Your task to perform on an android device: turn off picture-in-picture Image 0: 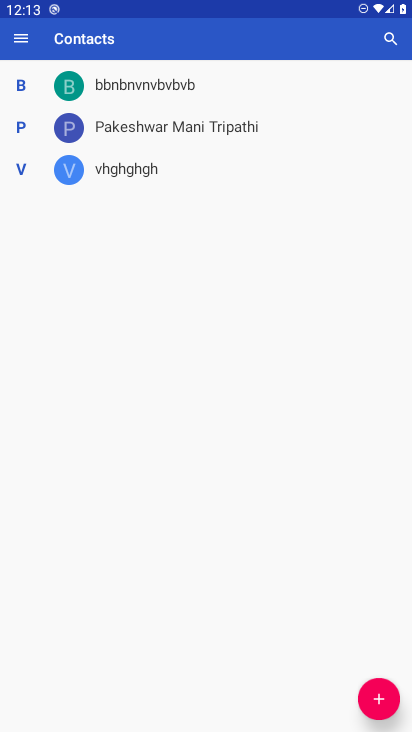
Step 0: press home button
Your task to perform on an android device: turn off picture-in-picture Image 1: 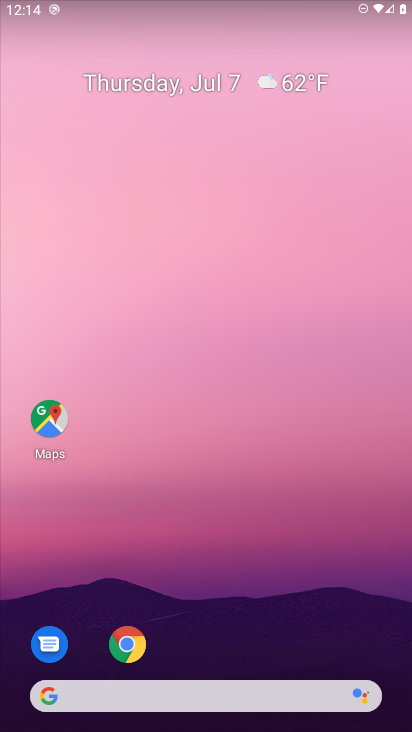
Step 1: click (137, 648)
Your task to perform on an android device: turn off picture-in-picture Image 2: 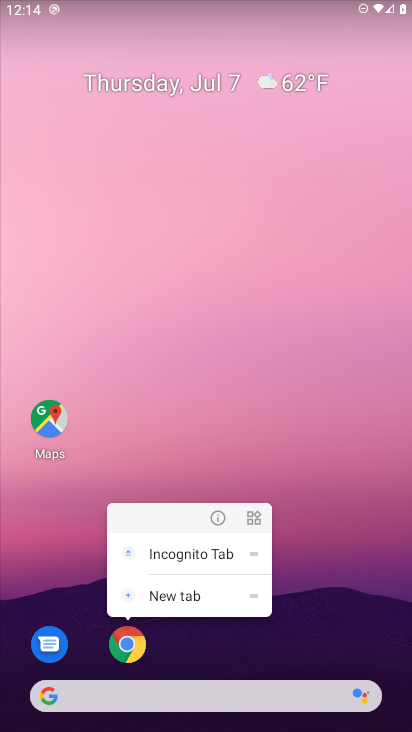
Step 2: click (222, 520)
Your task to perform on an android device: turn off picture-in-picture Image 3: 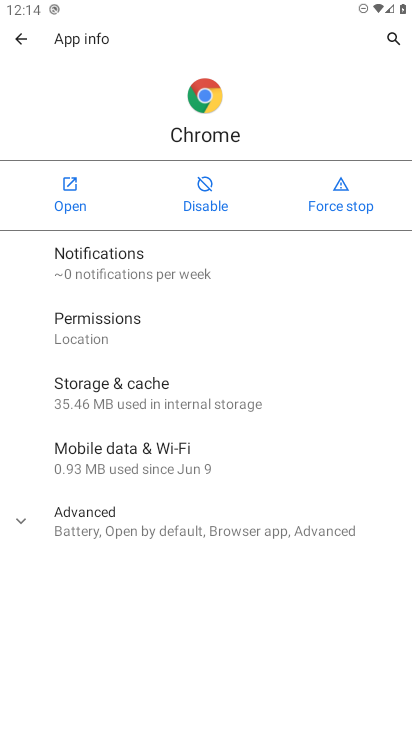
Step 3: click (113, 506)
Your task to perform on an android device: turn off picture-in-picture Image 4: 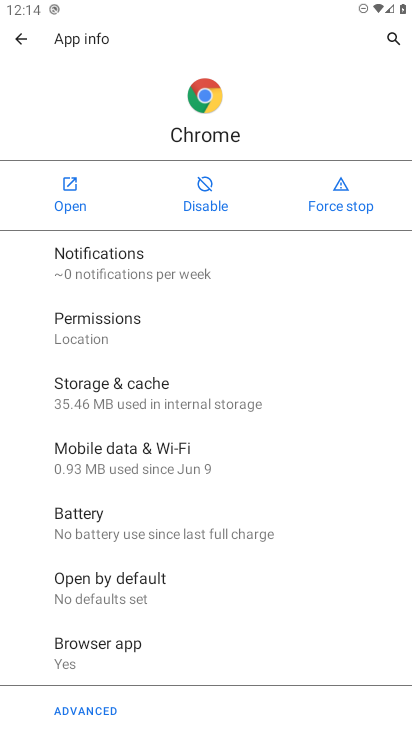
Step 4: drag from (338, 612) to (317, 281)
Your task to perform on an android device: turn off picture-in-picture Image 5: 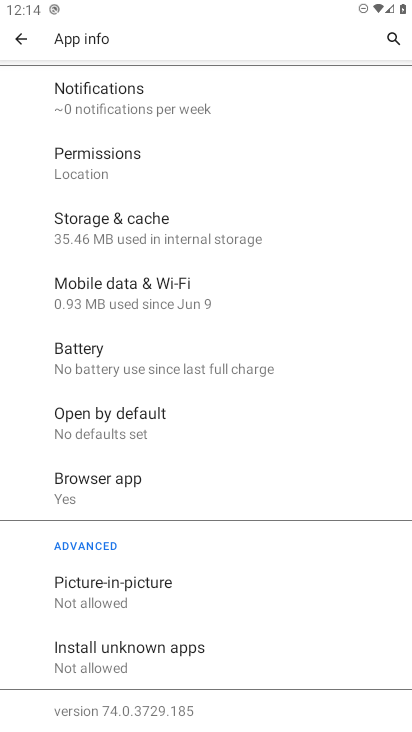
Step 5: click (162, 588)
Your task to perform on an android device: turn off picture-in-picture Image 6: 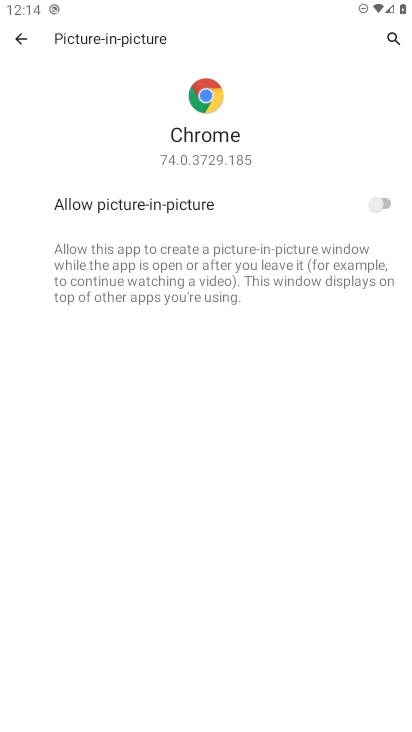
Step 6: task complete